Your task to perform on an android device: Go to CNN.com Image 0: 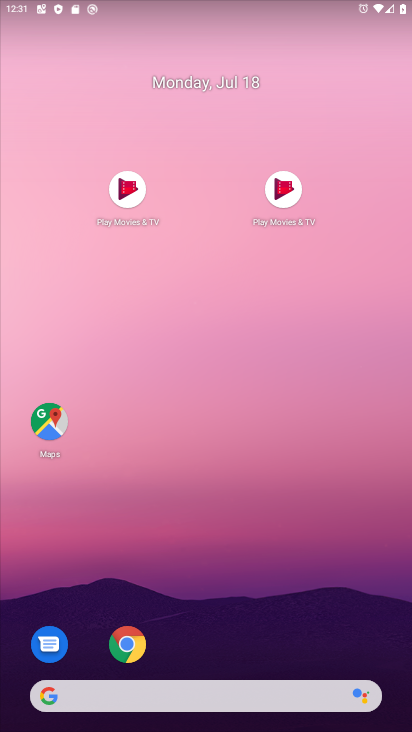
Step 0: drag from (297, 615) to (138, 29)
Your task to perform on an android device: Go to CNN.com Image 1: 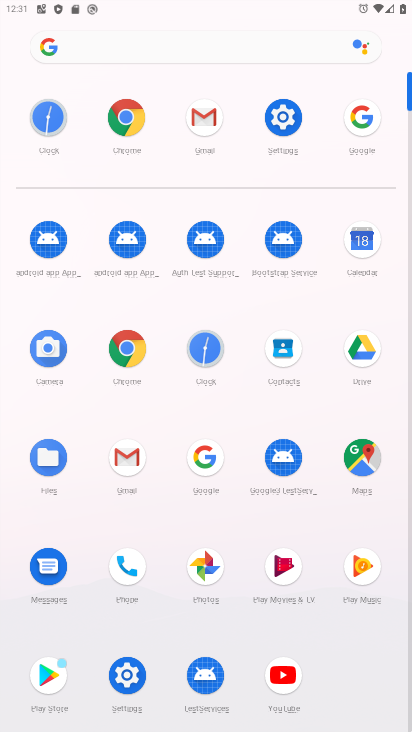
Step 1: click (131, 150)
Your task to perform on an android device: Go to CNN.com Image 2: 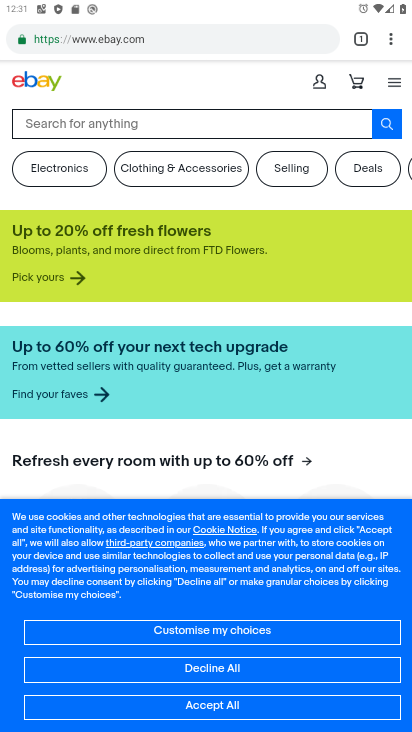
Step 2: click (240, 45)
Your task to perform on an android device: Go to CNN.com Image 3: 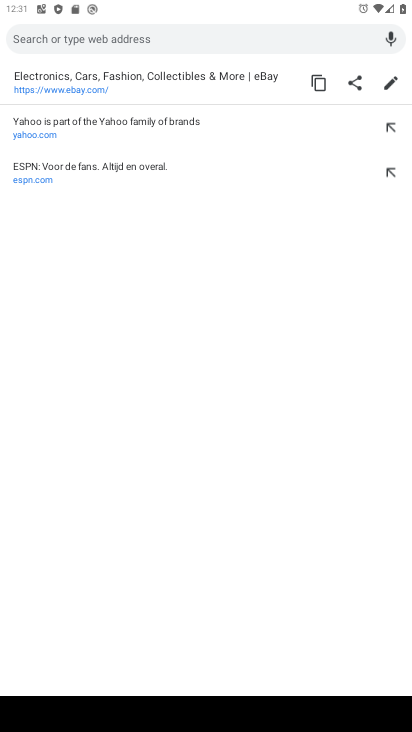
Step 3: type "cnn.com"
Your task to perform on an android device: Go to CNN.com Image 4: 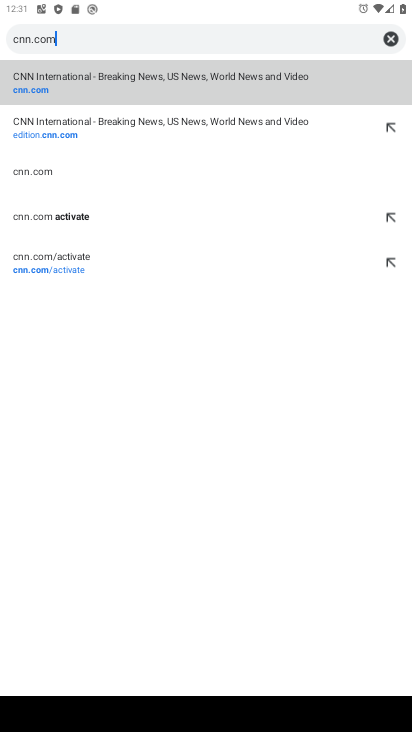
Step 4: click (14, 86)
Your task to perform on an android device: Go to CNN.com Image 5: 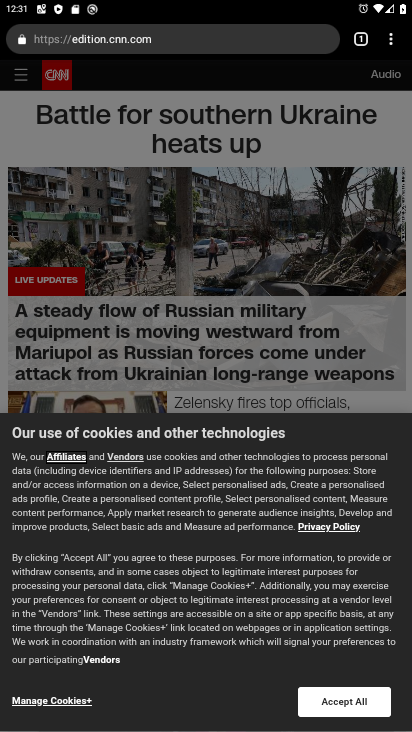
Step 5: task complete